Your task to perform on an android device: toggle show notifications on the lock screen Image 0: 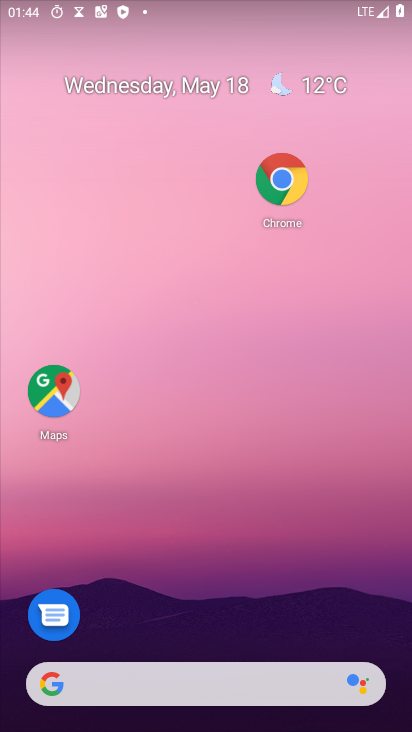
Step 0: drag from (117, 681) to (281, 202)
Your task to perform on an android device: toggle show notifications on the lock screen Image 1: 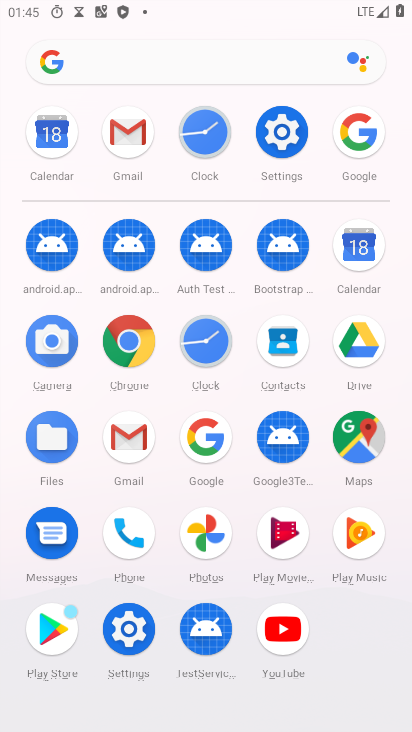
Step 1: click (286, 155)
Your task to perform on an android device: toggle show notifications on the lock screen Image 2: 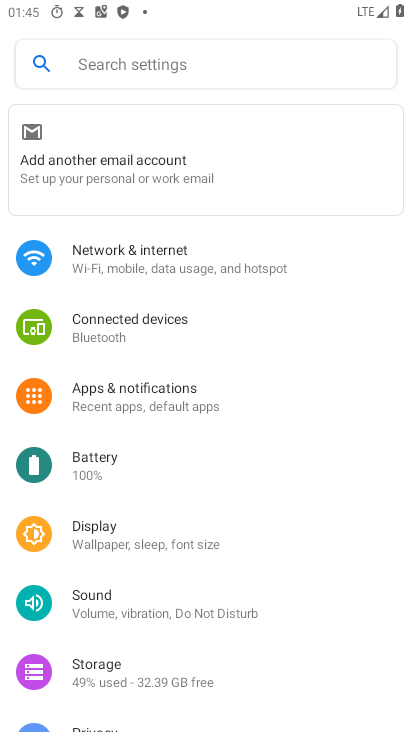
Step 2: click (183, 398)
Your task to perform on an android device: toggle show notifications on the lock screen Image 3: 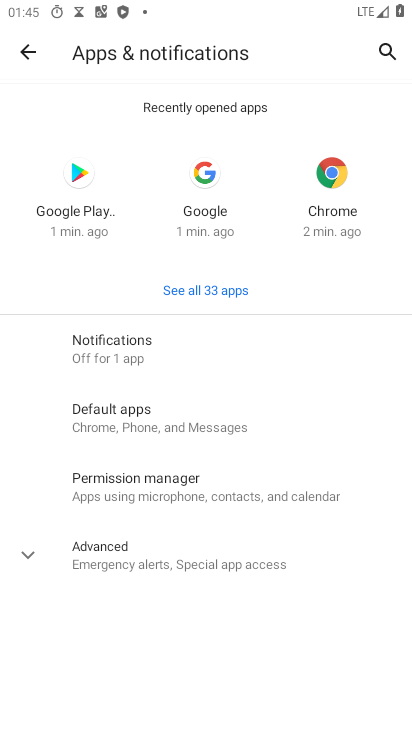
Step 3: click (129, 343)
Your task to perform on an android device: toggle show notifications on the lock screen Image 4: 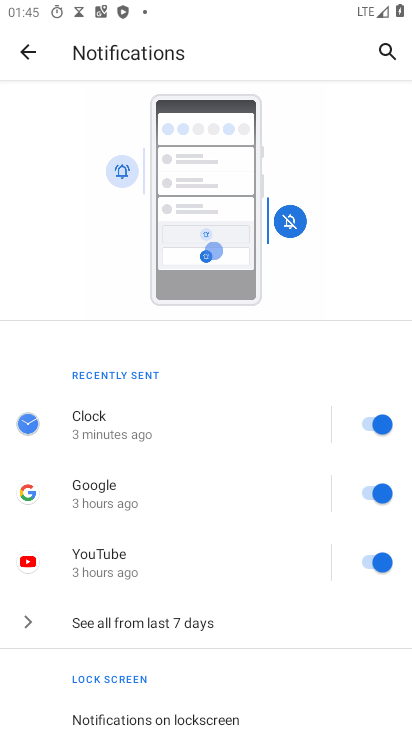
Step 4: drag from (188, 658) to (331, 178)
Your task to perform on an android device: toggle show notifications on the lock screen Image 5: 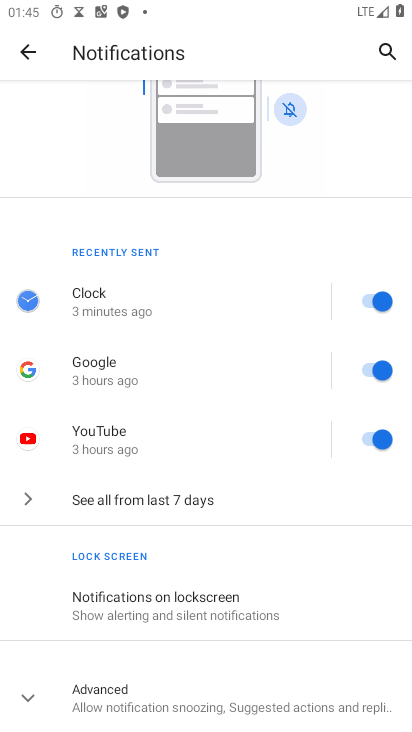
Step 5: click (207, 610)
Your task to perform on an android device: toggle show notifications on the lock screen Image 6: 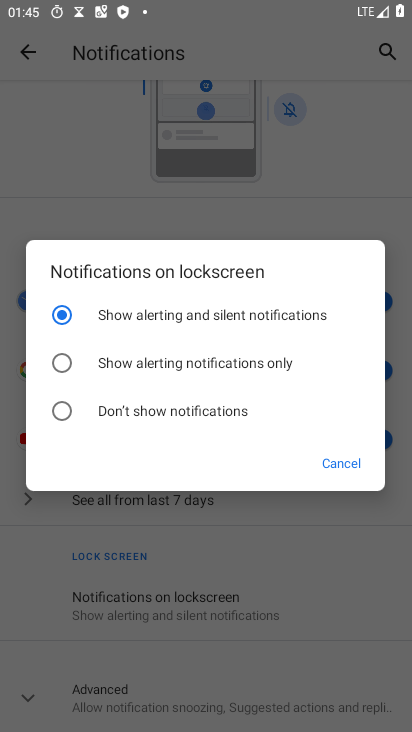
Step 6: click (62, 414)
Your task to perform on an android device: toggle show notifications on the lock screen Image 7: 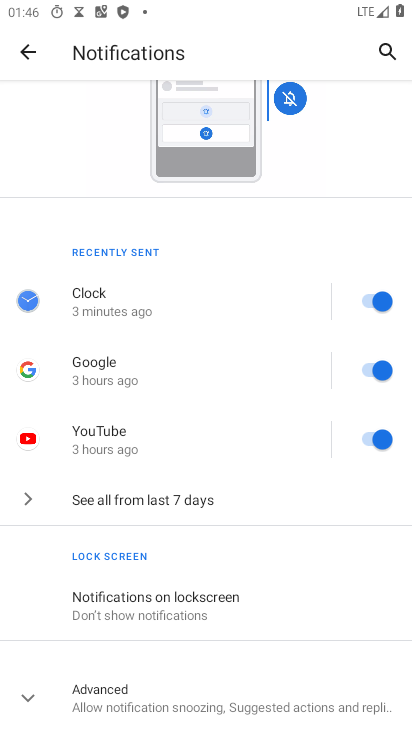
Step 7: task complete